Your task to perform on an android device: Show me the alarms in the clock app Image 0: 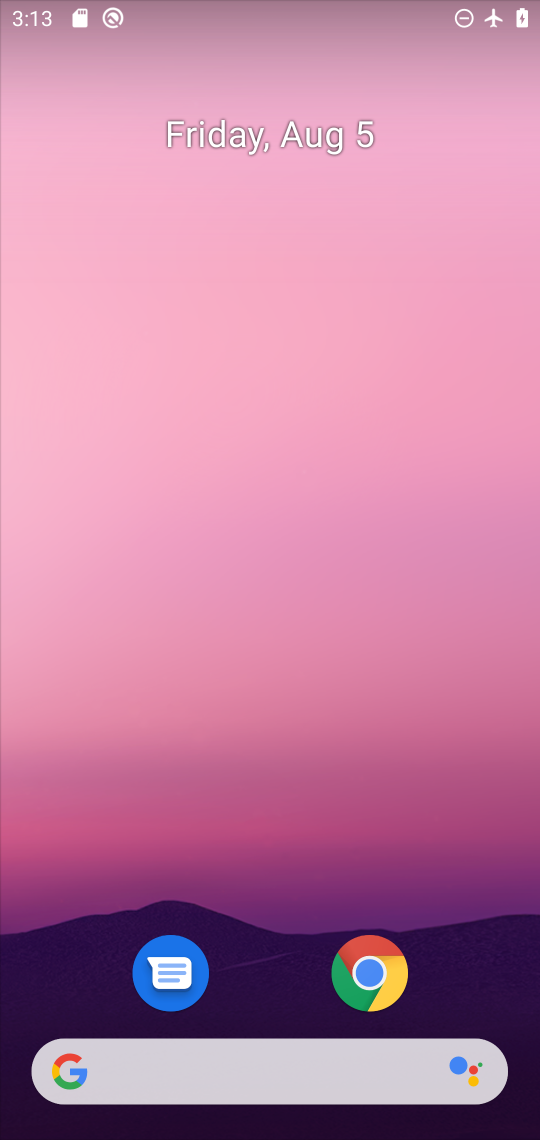
Step 0: drag from (273, 738) to (261, 89)
Your task to perform on an android device: Show me the alarms in the clock app Image 1: 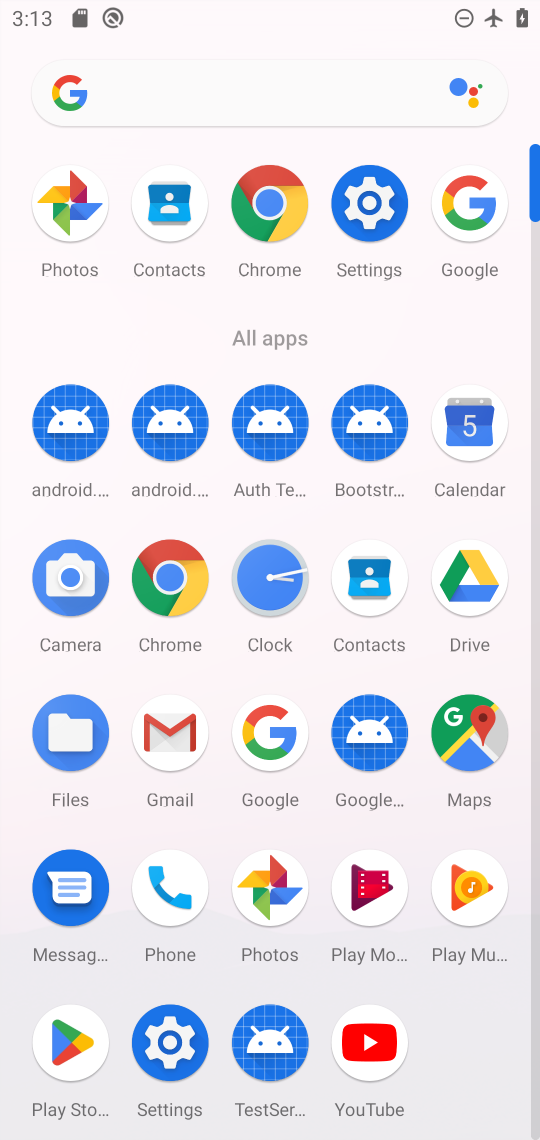
Step 1: click (278, 589)
Your task to perform on an android device: Show me the alarms in the clock app Image 2: 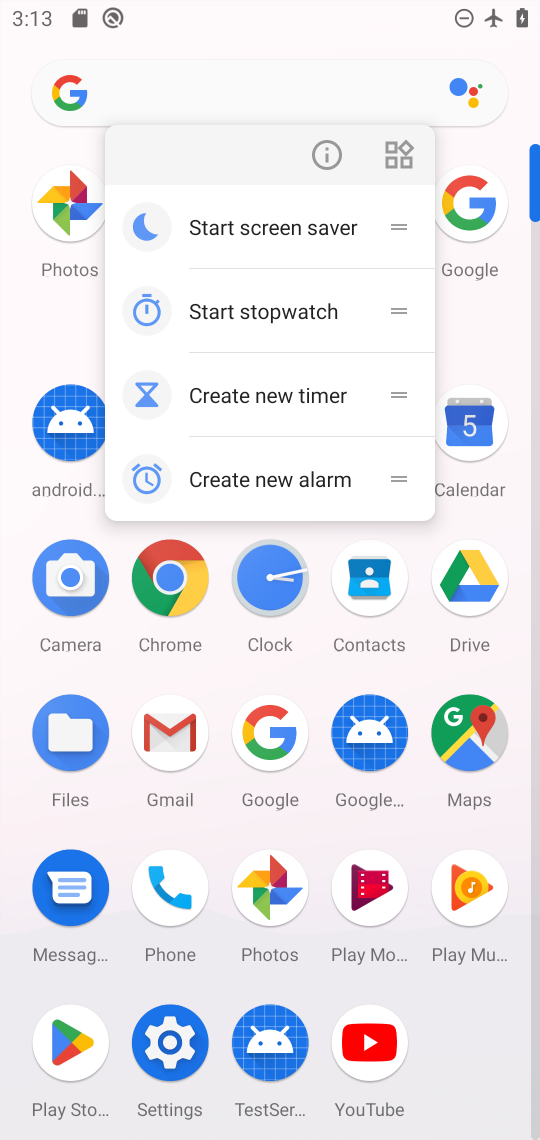
Step 2: click (249, 610)
Your task to perform on an android device: Show me the alarms in the clock app Image 3: 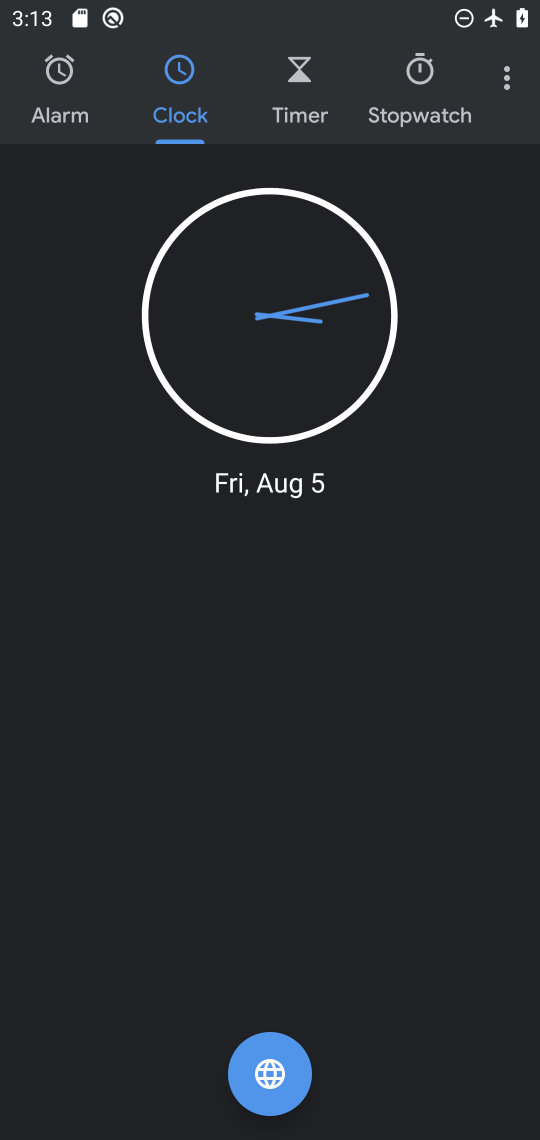
Step 3: click (78, 133)
Your task to perform on an android device: Show me the alarms in the clock app Image 4: 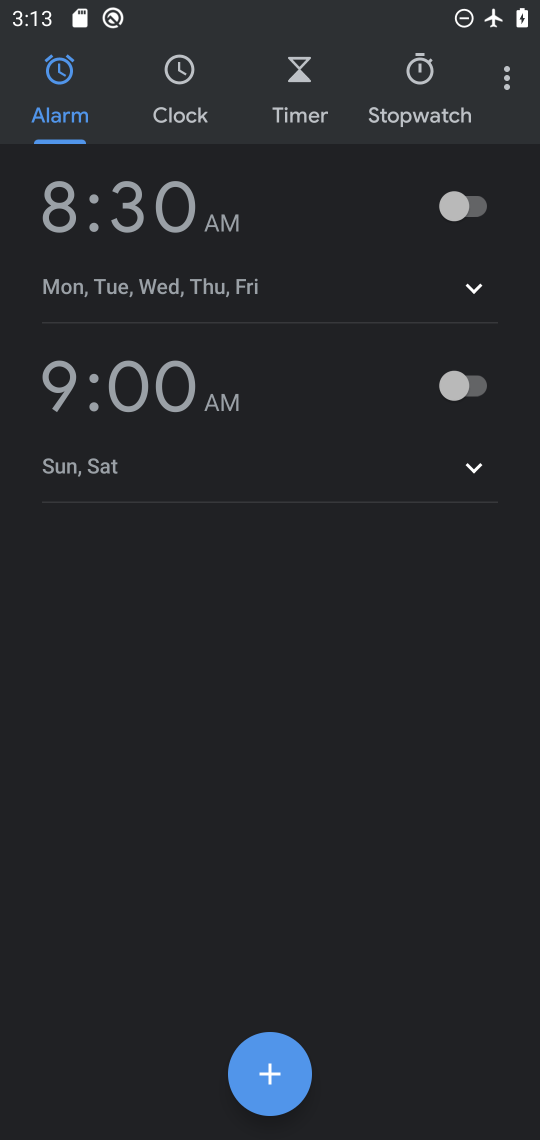
Step 4: task complete